Your task to perform on an android device: Check the weather Image 0: 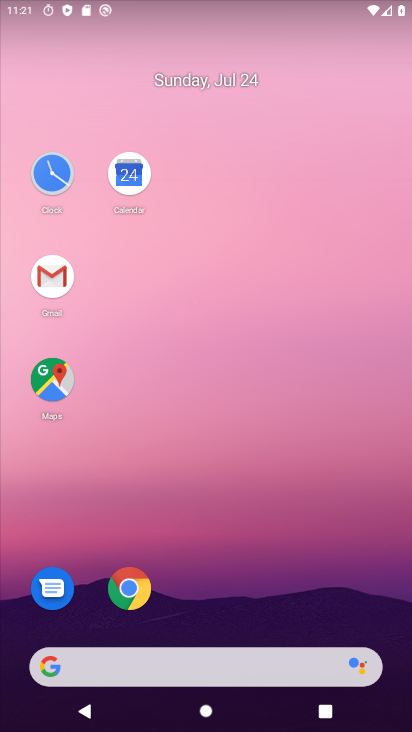
Step 0: drag from (242, 551) to (279, 69)
Your task to perform on an android device: Check the weather Image 1: 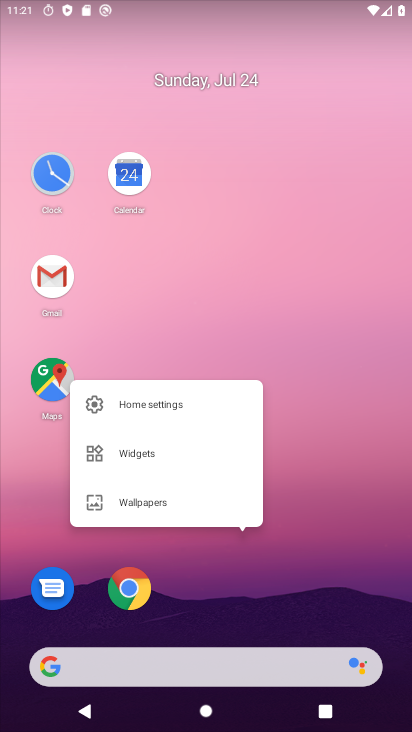
Step 1: drag from (332, 451) to (309, 250)
Your task to perform on an android device: Check the weather Image 2: 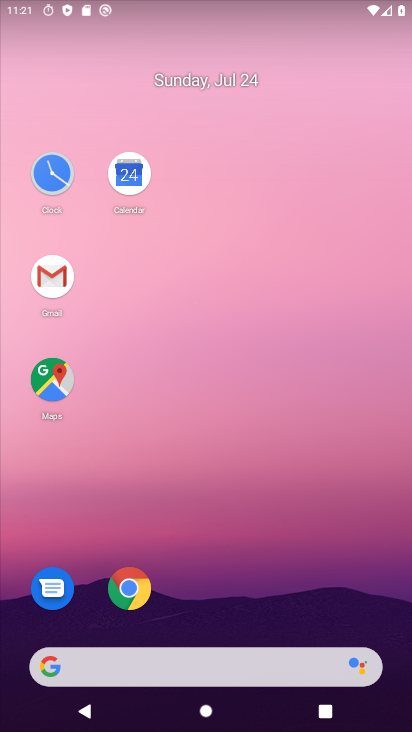
Step 2: drag from (293, 585) to (272, 70)
Your task to perform on an android device: Check the weather Image 3: 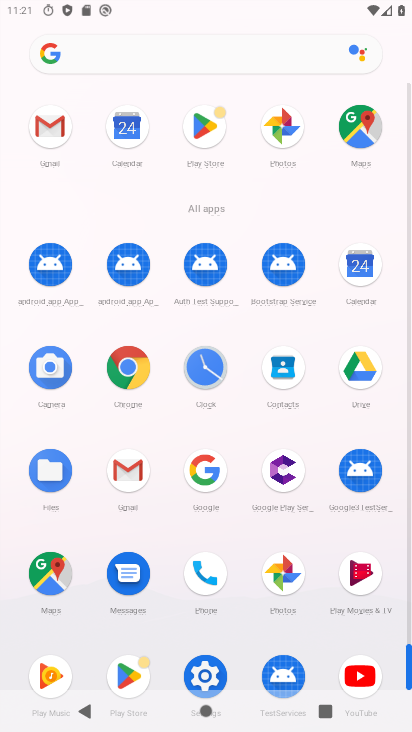
Step 3: drag from (203, 468) to (138, 273)
Your task to perform on an android device: Check the weather Image 4: 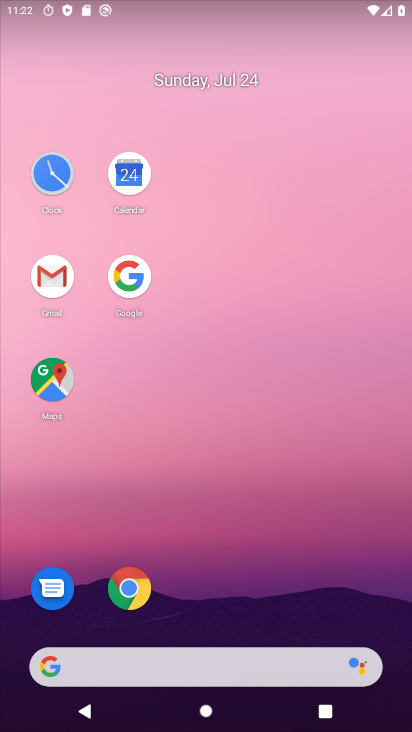
Step 4: click (133, 272)
Your task to perform on an android device: Check the weather Image 5: 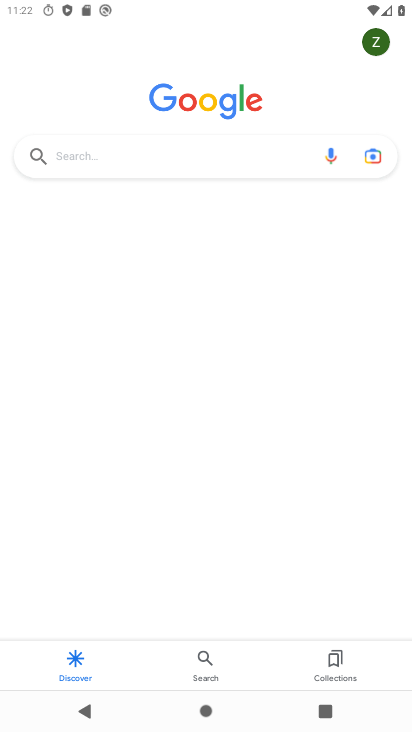
Step 5: click (122, 150)
Your task to perform on an android device: Check the weather Image 6: 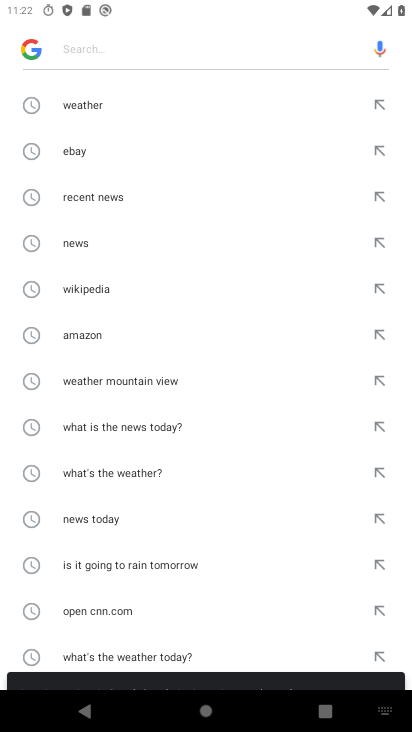
Step 6: click (115, 106)
Your task to perform on an android device: Check the weather Image 7: 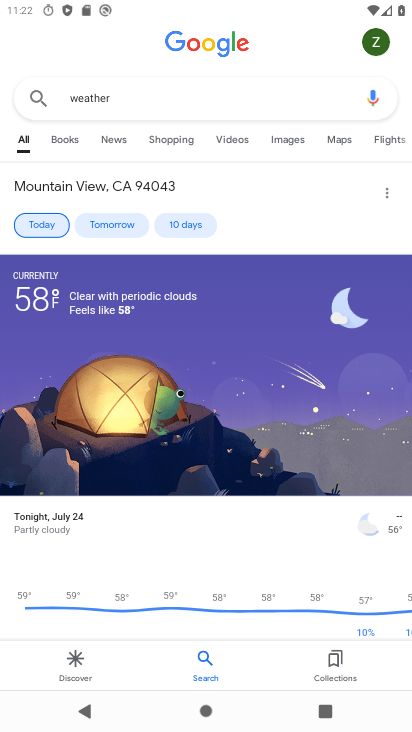
Step 7: task complete